Your task to perform on an android device: turn on javascript in the chrome app Image 0: 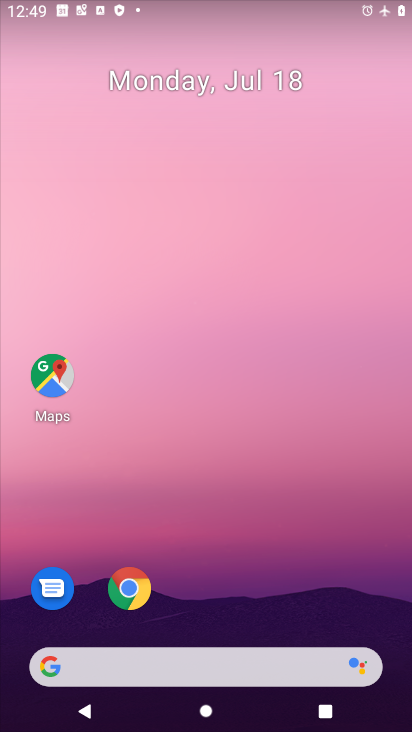
Step 0: drag from (231, 699) to (210, 276)
Your task to perform on an android device: turn on javascript in the chrome app Image 1: 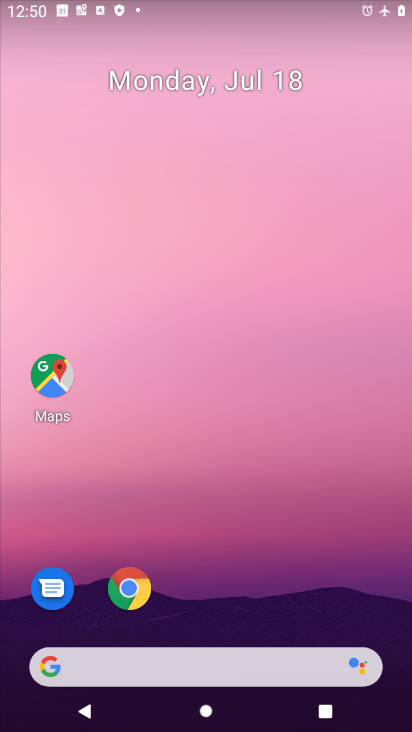
Step 1: drag from (217, 631) to (229, 235)
Your task to perform on an android device: turn on javascript in the chrome app Image 2: 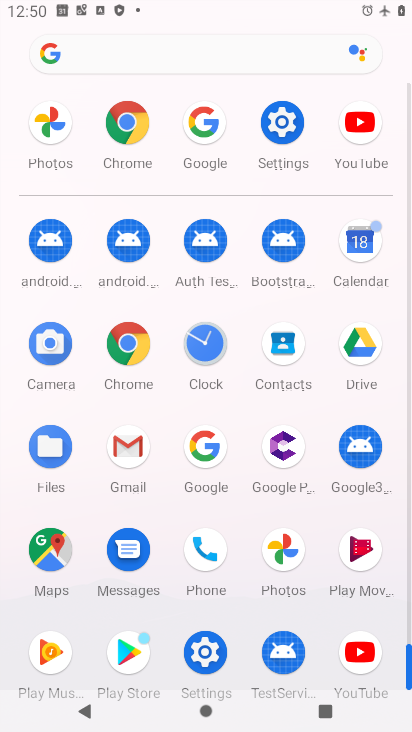
Step 2: click (129, 379)
Your task to perform on an android device: turn on javascript in the chrome app Image 3: 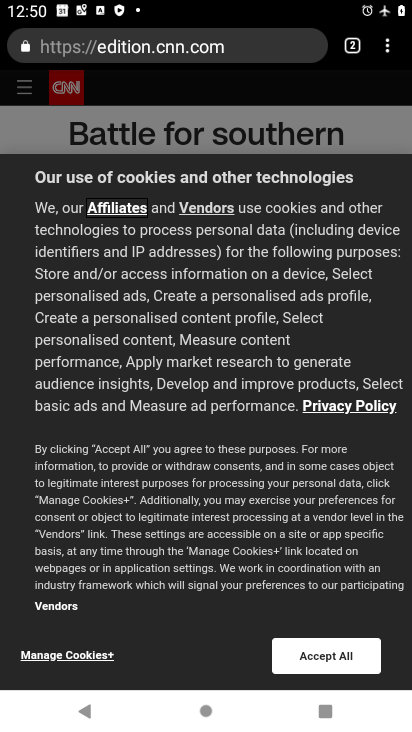
Step 3: click (386, 52)
Your task to perform on an android device: turn on javascript in the chrome app Image 4: 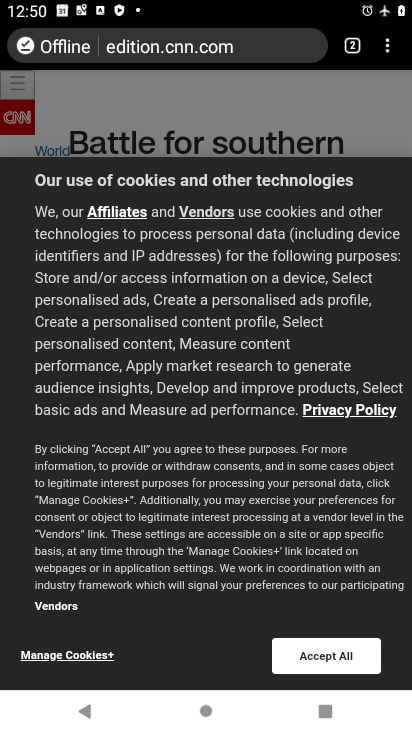
Step 4: click (391, 52)
Your task to perform on an android device: turn on javascript in the chrome app Image 5: 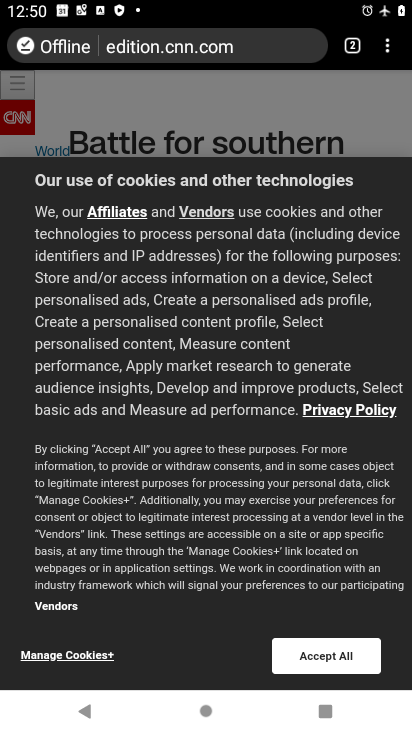
Step 5: click (392, 50)
Your task to perform on an android device: turn on javascript in the chrome app Image 6: 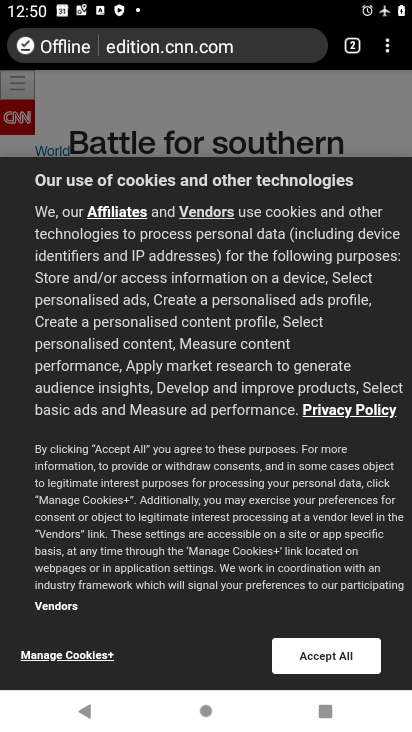
Step 6: click (387, 52)
Your task to perform on an android device: turn on javascript in the chrome app Image 7: 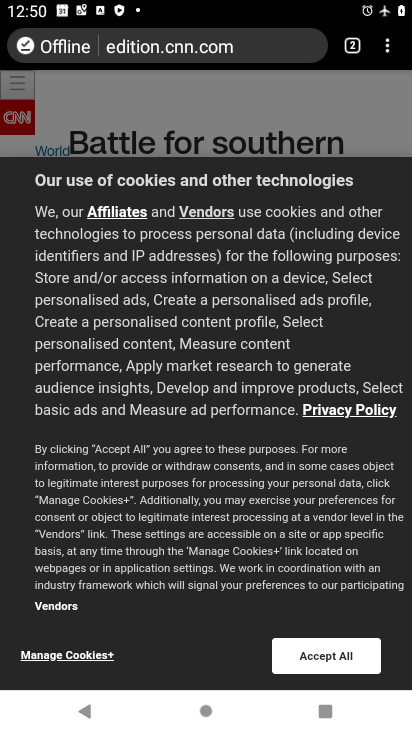
Step 7: click (386, 40)
Your task to perform on an android device: turn on javascript in the chrome app Image 8: 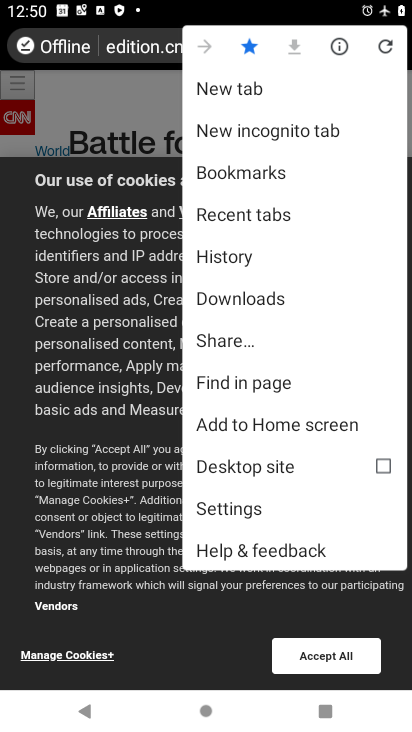
Step 8: click (229, 505)
Your task to perform on an android device: turn on javascript in the chrome app Image 9: 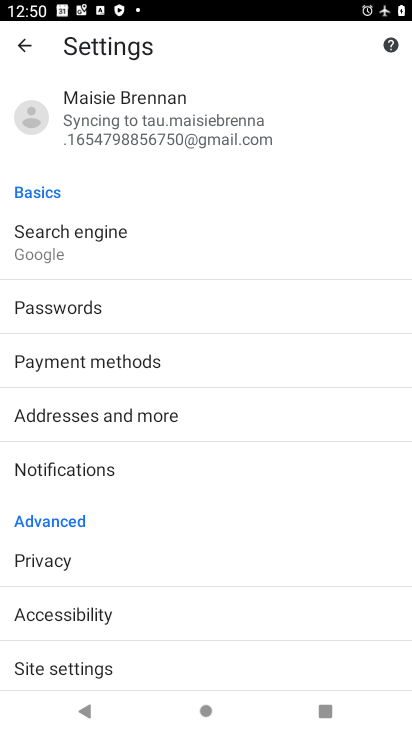
Step 9: click (98, 682)
Your task to perform on an android device: turn on javascript in the chrome app Image 10: 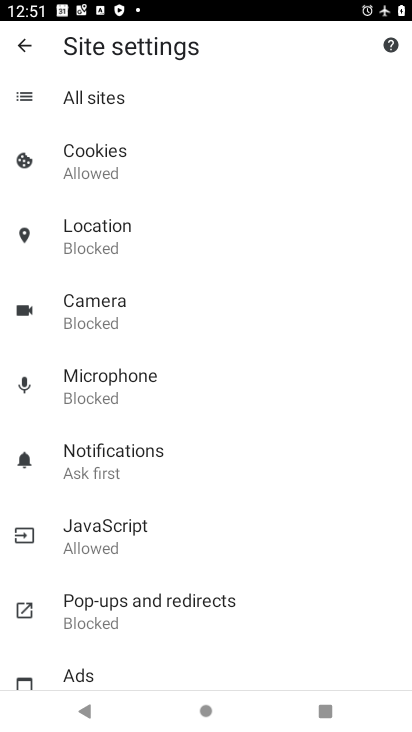
Step 10: click (147, 513)
Your task to perform on an android device: turn on javascript in the chrome app Image 11: 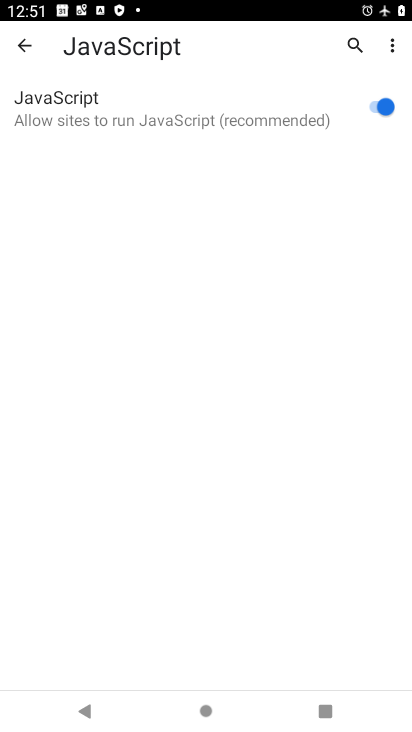
Step 11: task complete